Your task to perform on an android device: make emails show in primary in the gmail app Image 0: 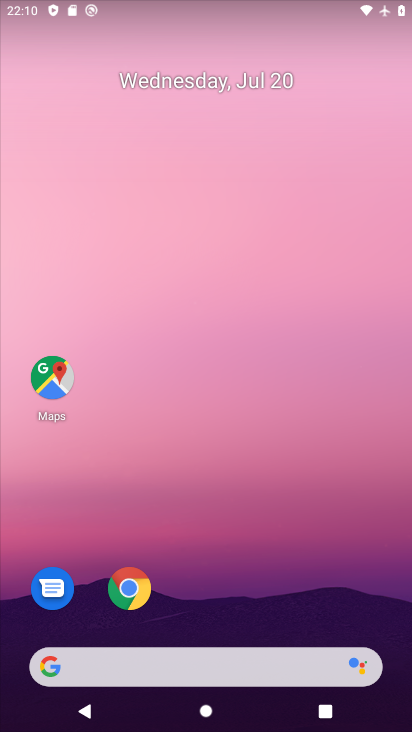
Step 0: drag from (352, 623) to (339, 160)
Your task to perform on an android device: make emails show in primary in the gmail app Image 1: 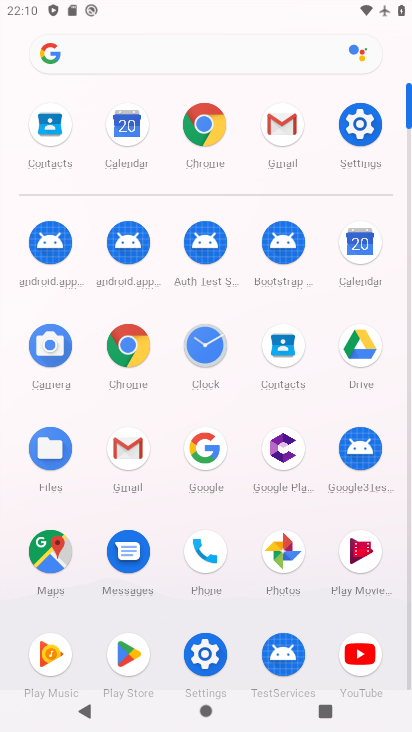
Step 1: click (127, 447)
Your task to perform on an android device: make emails show in primary in the gmail app Image 2: 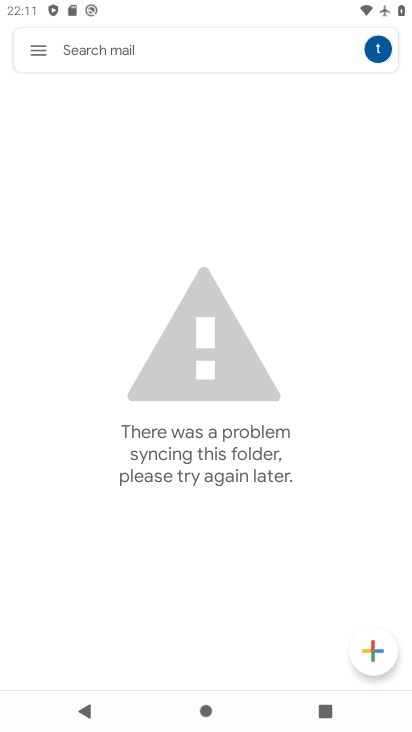
Step 2: click (39, 52)
Your task to perform on an android device: make emails show in primary in the gmail app Image 3: 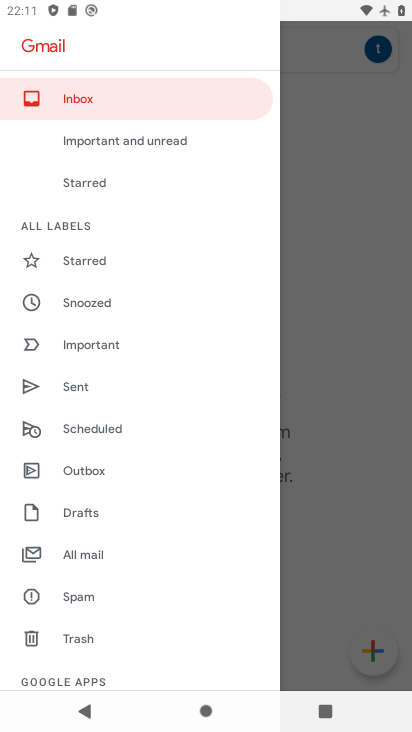
Step 3: drag from (110, 632) to (137, 328)
Your task to perform on an android device: make emails show in primary in the gmail app Image 4: 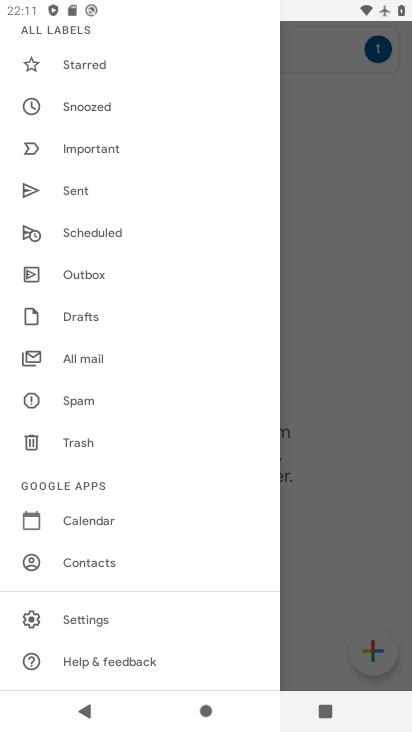
Step 4: click (74, 622)
Your task to perform on an android device: make emails show in primary in the gmail app Image 5: 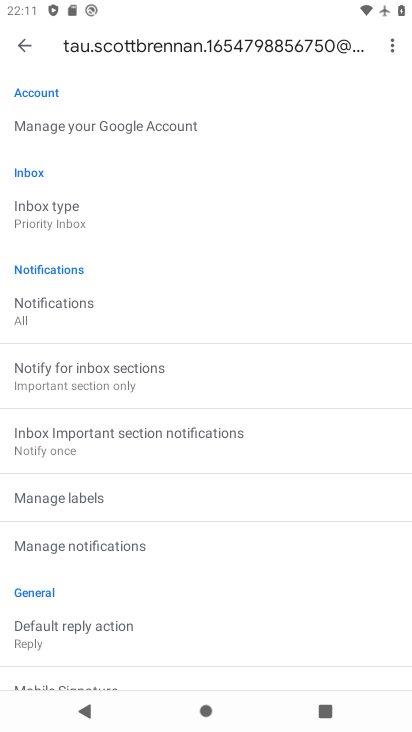
Step 5: drag from (145, 583) to (186, 249)
Your task to perform on an android device: make emails show in primary in the gmail app Image 6: 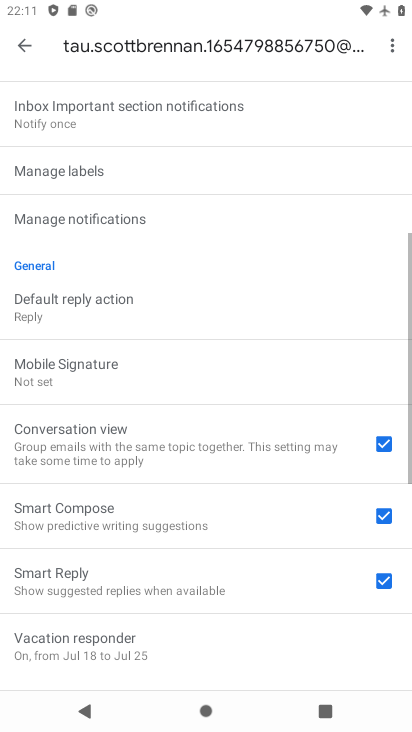
Step 6: drag from (182, 280) to (169, 573)
Your task to perform on an android device: make emails show in primary in the gmail app Image 7: 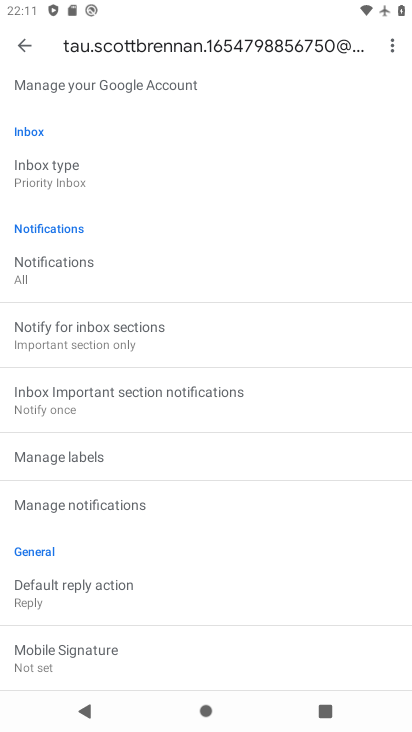
Step 7: click (53, 166)
Your task to perform on an android device: make emails show in primary in the gmail app Image 8: 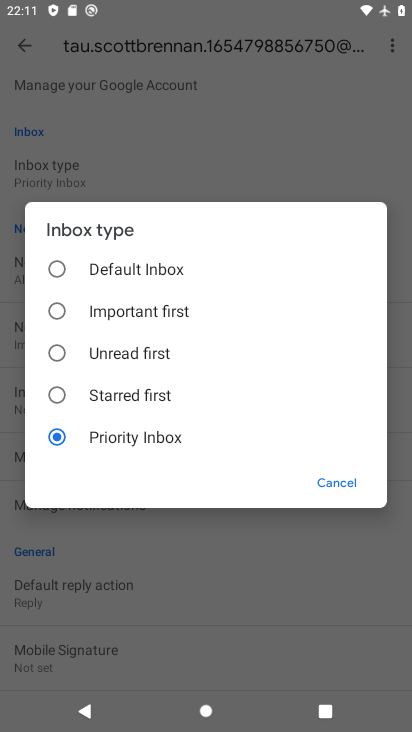
Step 8: click (56, 272)
Your task to perform on an android device: make emails show in primary in the gmail app Image 9: 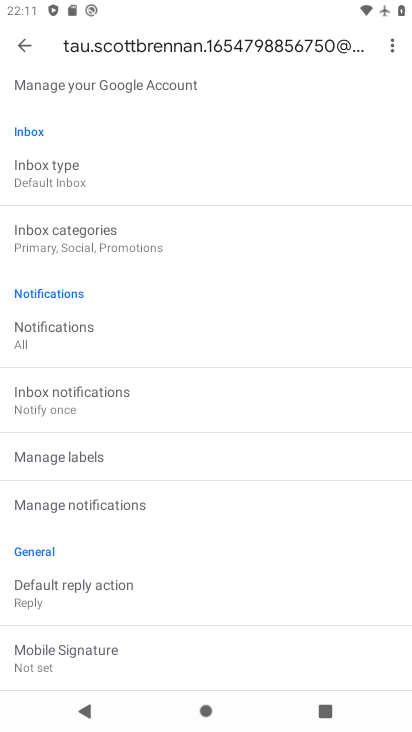
Step 9: click (53, 230)
Your task to perform on an android device: make emails show in primary in the gmail app Image 10: 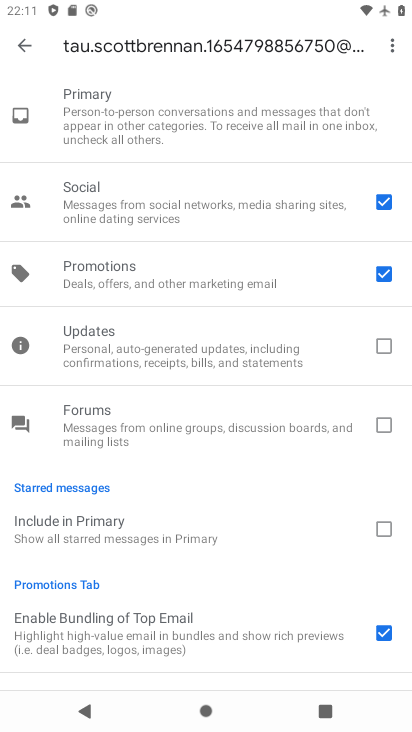
Step 10: click (385, 278)
Your task to perform on an android device: make emails show in primary in the gmail app Image 11: 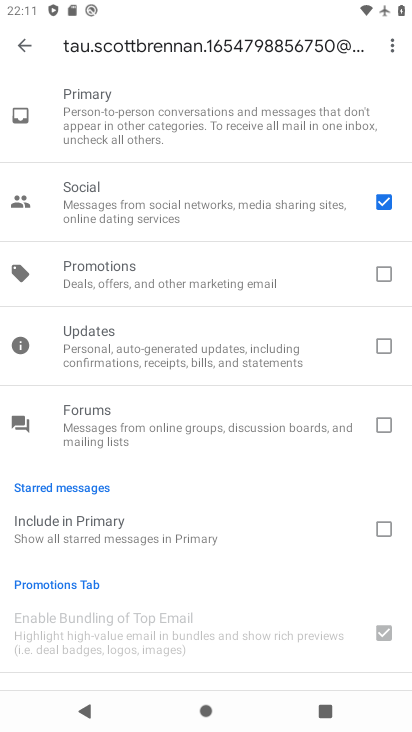
Step 11: click (385, 207)
Your task to perform on an android device: make emails show in primary in the gmail app Image 12: 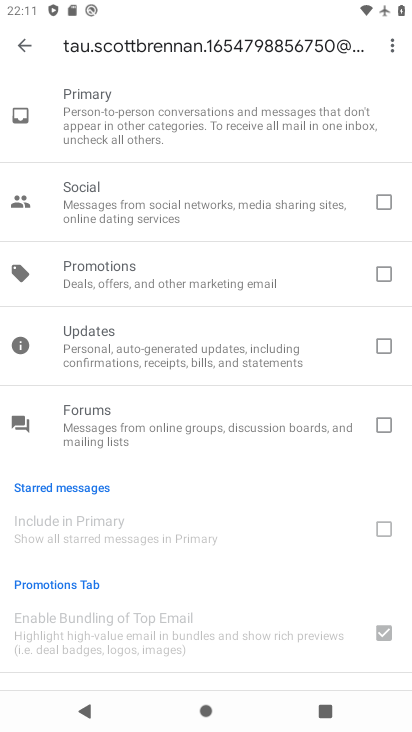
Step 12: task complete